Your task to perform on an android device: turn pop-ups off in chrome Image 0: 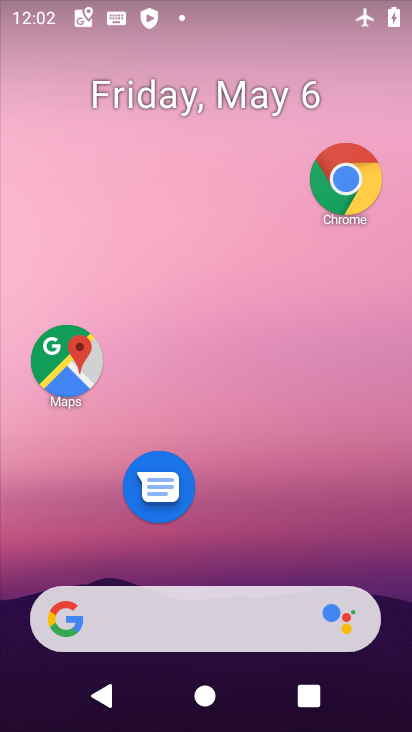
Step 0: click (322, 193)
Your task to perform on an android device: turn pop-ups off in chrome Image 1: 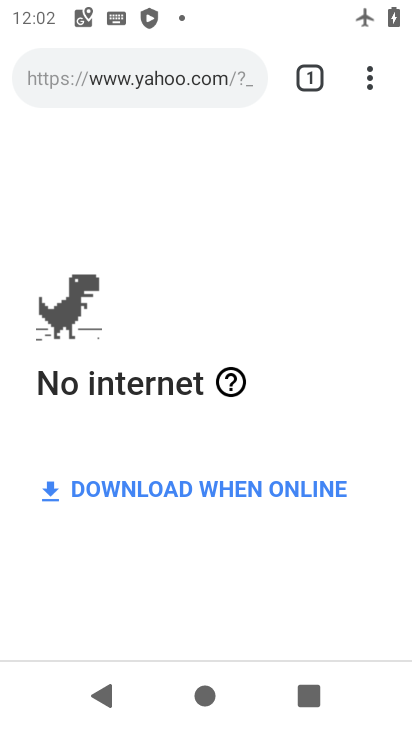
Step 1: click (370, 67)
Your task to perform on an android device: turn pop-ups off in chrome Image 2: 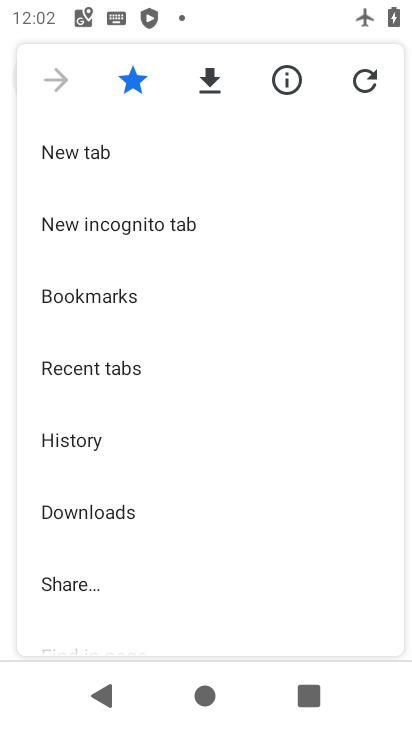
Step 2: drag from (201, 549) to (224, 407)
Your task to perform on an android device: turn pop-ups off in chrome Image 3: 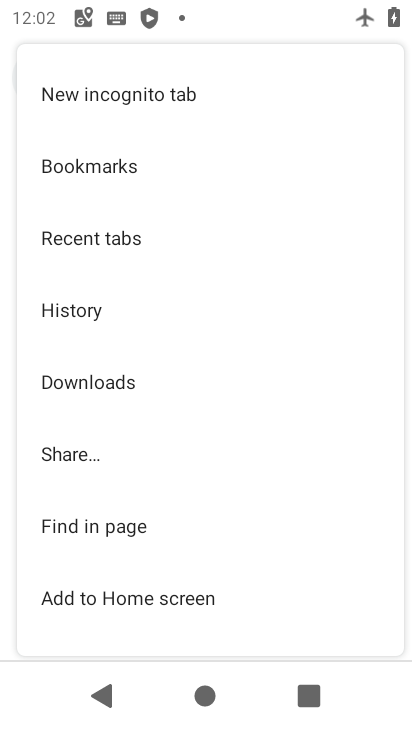
Step 3: drag from (224, 641) to (261, 277)
Your task to perform on an android device: turn pop-ups off in chrome Image 4: 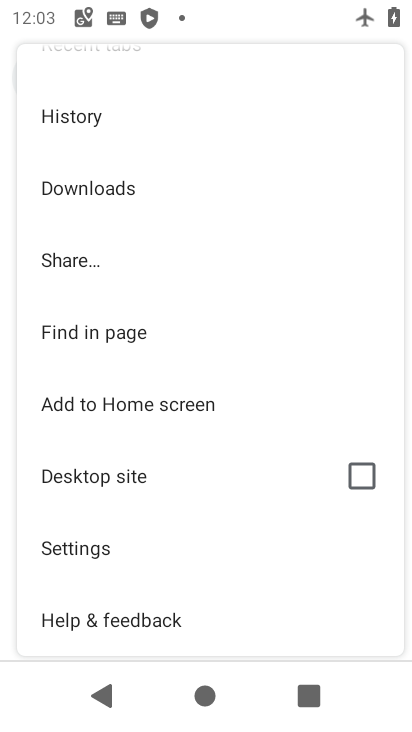
Step 4: click (133, 527)
Your task to perform on an android device: turn pop-ups off in chrome Image 5: 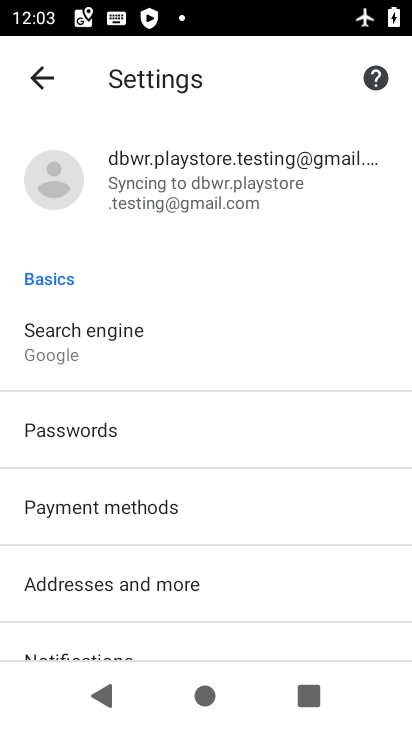
Step 5: drag from (168, 578) to (191, 323)
Your task to perform on an android device: turn pop-ups off in chrome Image 6: 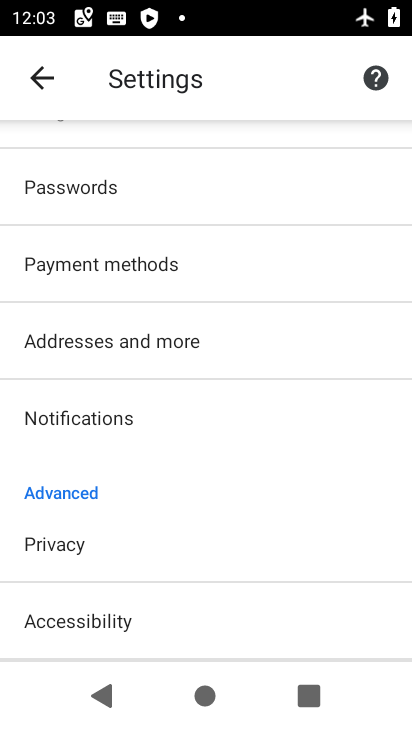
Step 6: drag from (200, 509) to (194, 586)
Your task to perform on an android device: turn pop-ups off in chrome Image 7: 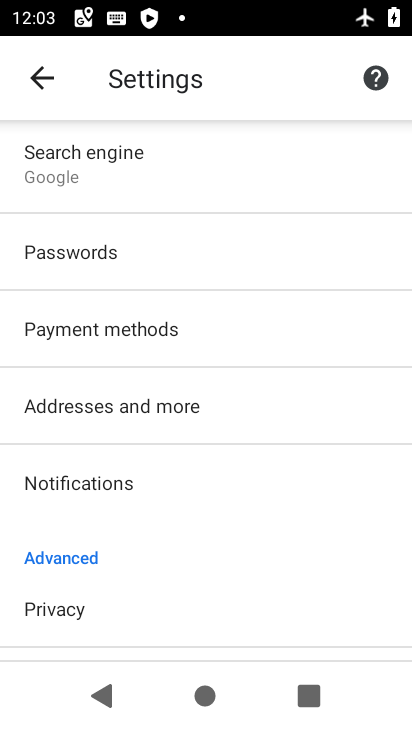
Step 7: drag from (154, 544) to (187, 346)
Your task to perform on an android device: turn pop-ups off in chrome Image 8: 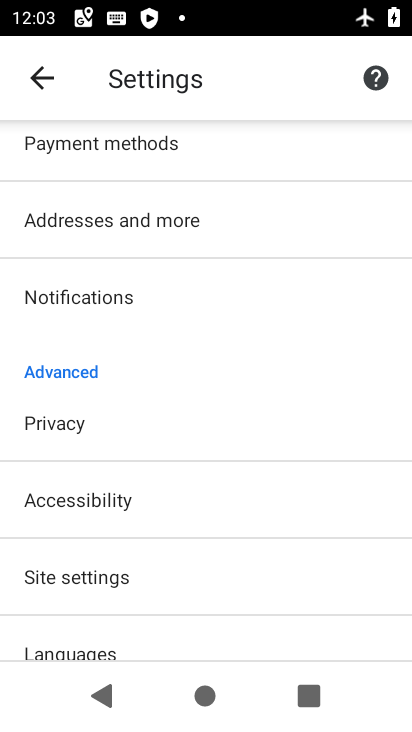
Step 8: drag from (152, 537) to (187, 402)
Your task to perform on an android device: turn pop-ups off in chrome Image 9: 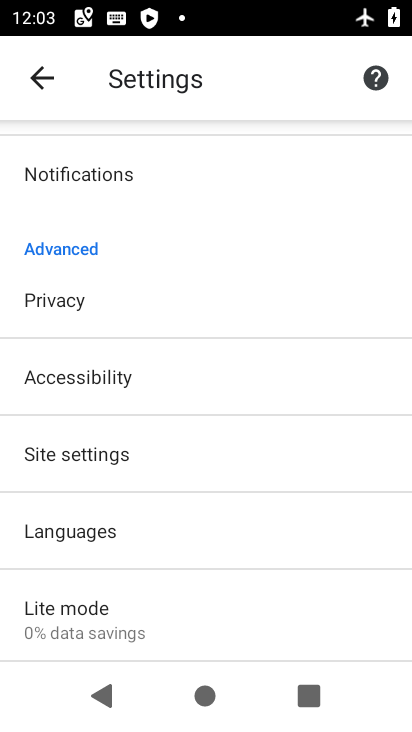
Step 9: click (180, 465)
Your task to perform on an android device: turn pop-ups off in chrome Image 10: 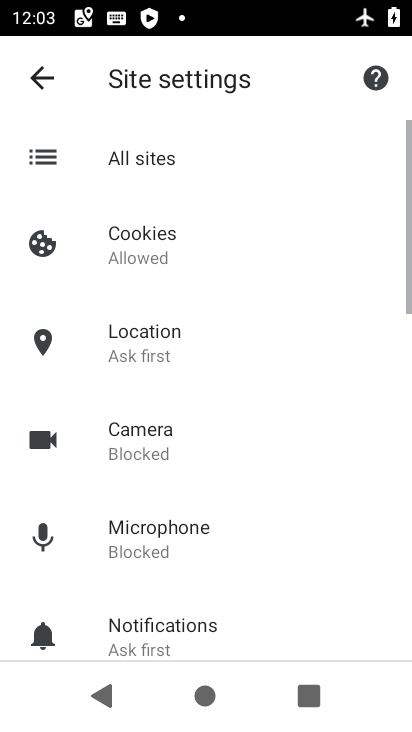
Step 10: drag from (170, 554) to (203, 345)
Your task to perform on an android device: turn pop-ups off in chrome Image 11: 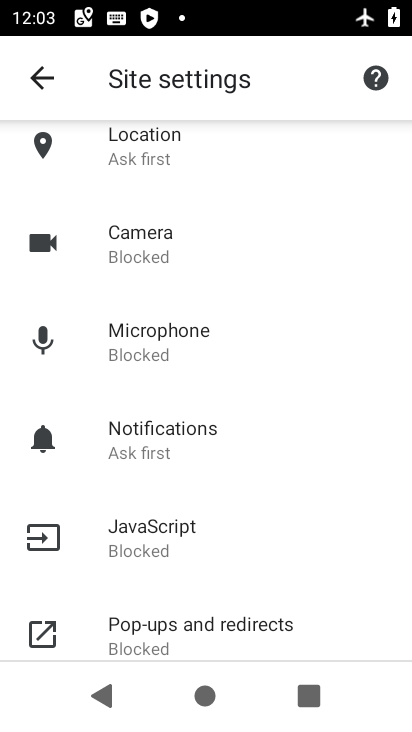
Step 11: click (167, 635)
Your task to perform on an android device: turn pop-ups off in chrome Image 12: 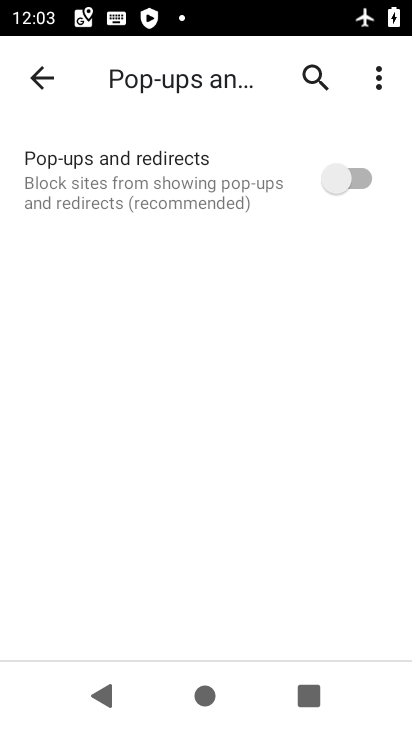
Step 12: task complete